Your task to perform on an android device: Go to ESPN.com Image 0: 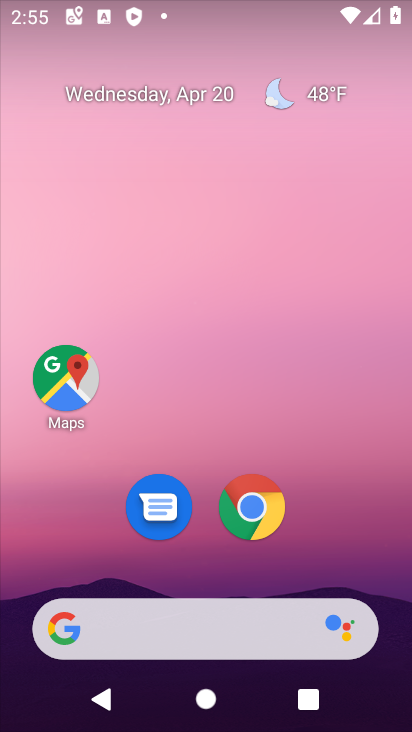
Step 0: click (242, 609)
Your task to perform on an android device: Go to ESPN.com Image 1: 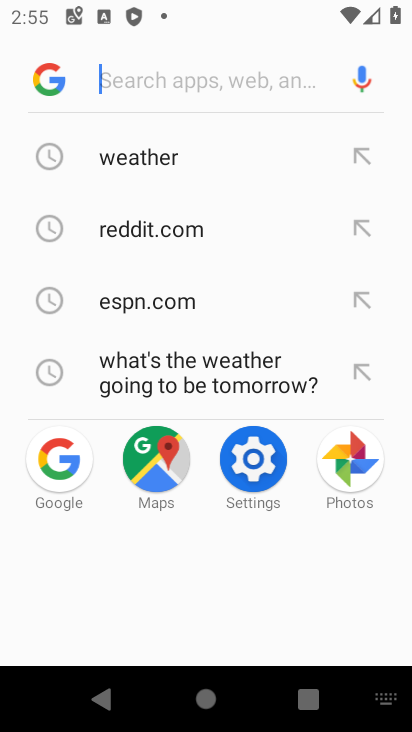
Step 1: type "ESPN.com"
Your task to perform on an android device: Go to ESPN.com Image 2: 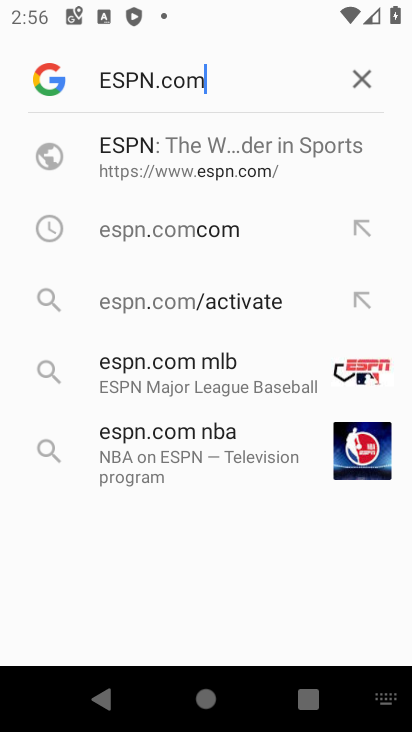
Step 2: click (208, 173)
Your task to perform on an android device: Go to ESPN.com Image 3: 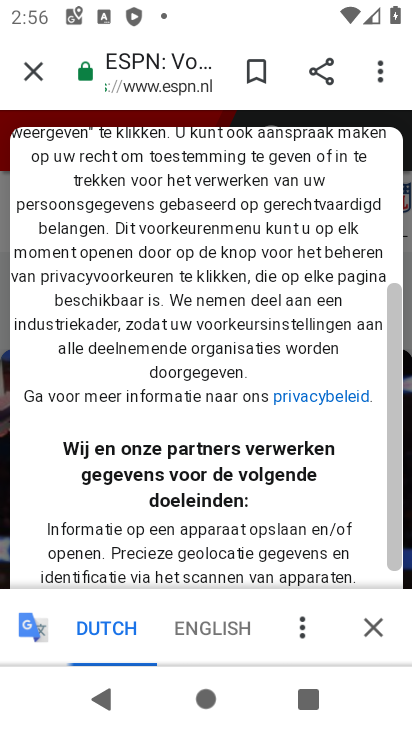
Step 3: task complete